Your task to perform on an android device: Go to Maps Image 0: 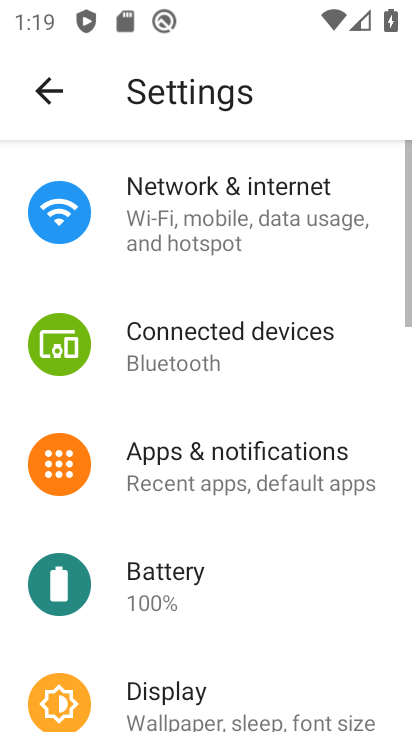
Step 0: press back button
Your task to perform on an android device: Go to Maps Image 1: 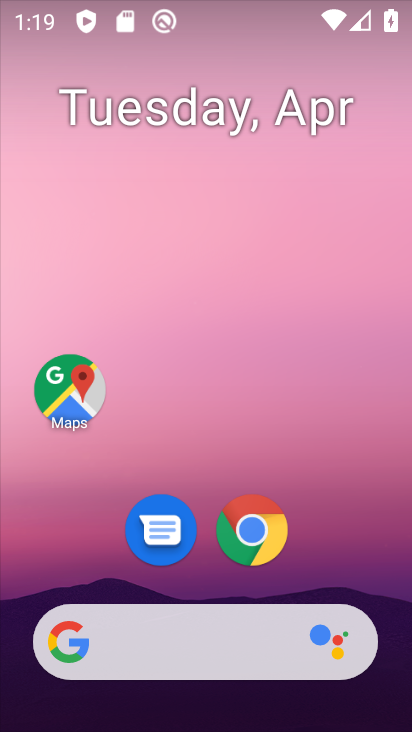
Step 1: drag from (191, 717) to (192, 33)
Your task to perform on an android device: Go to Maps Image 2: 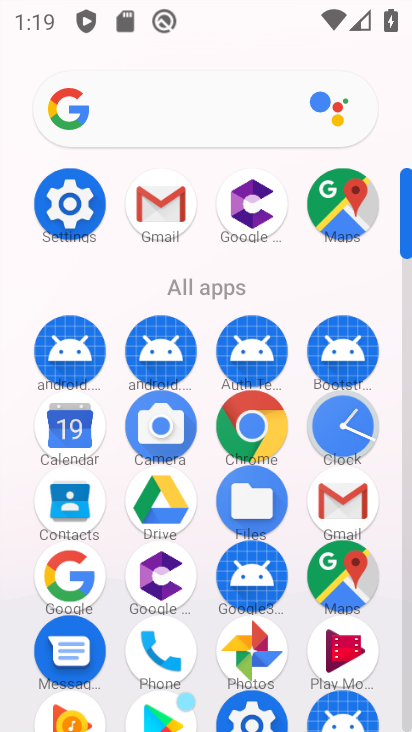
Step 2: click (348, 576)
Your task to perform on an android device: Go to Maps Image 3: 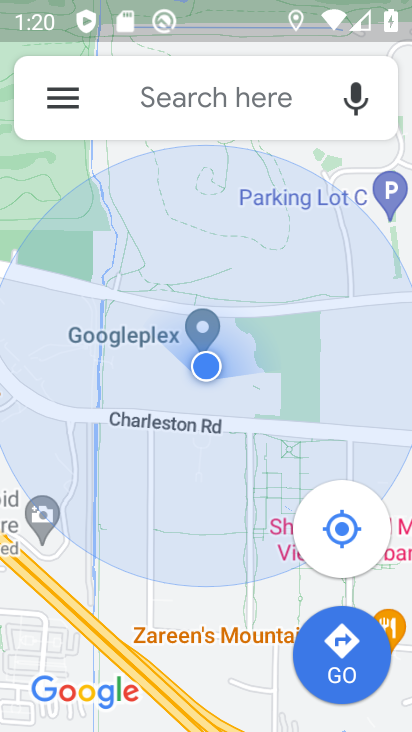
Step 3: task complete